Your task to perform on an android device: check data usage Image 0: 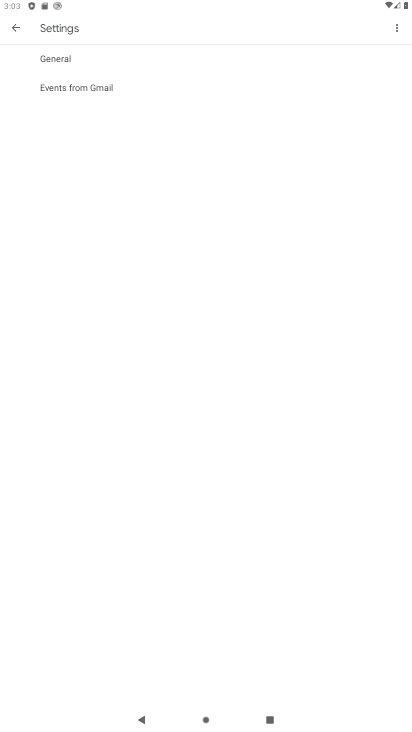
Step 0: drag from (186, 7) to (208, 433)
Your task to perform on an android device: check data usage Image 1: 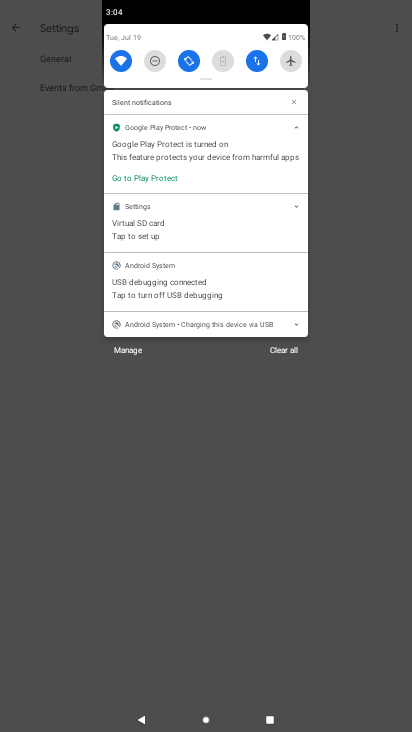
Step 1: click (251, 67)
Your task to perform on an android device: check data usage Image 2: 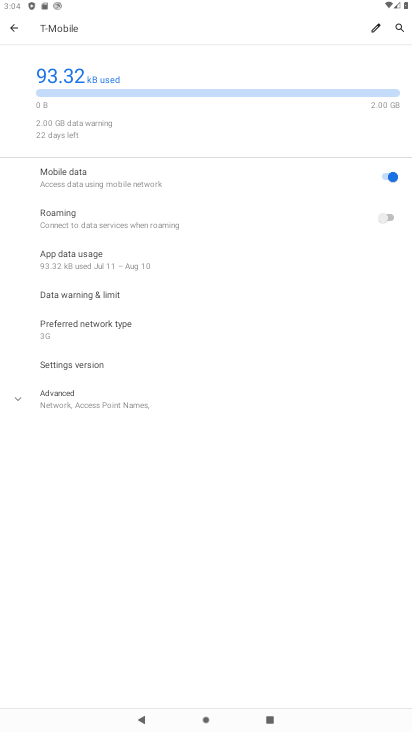
Step 2: task complete